Your task to perform on an android device: Go to display settings Image 0: 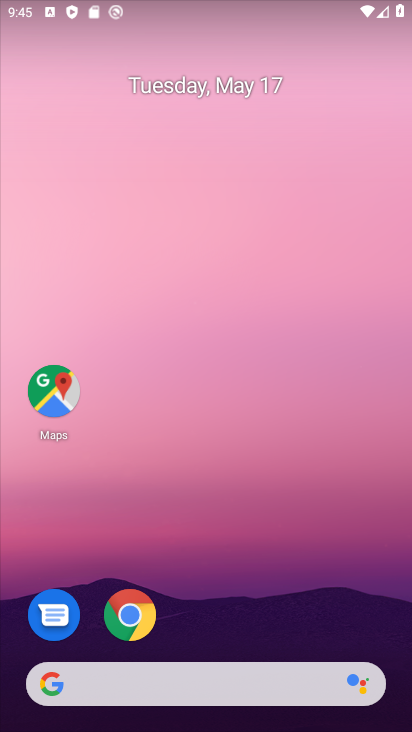
Step 0: drag from (387, 644) to (372, 33)
Your task to perform on an android device: Go to display settings Image 1: 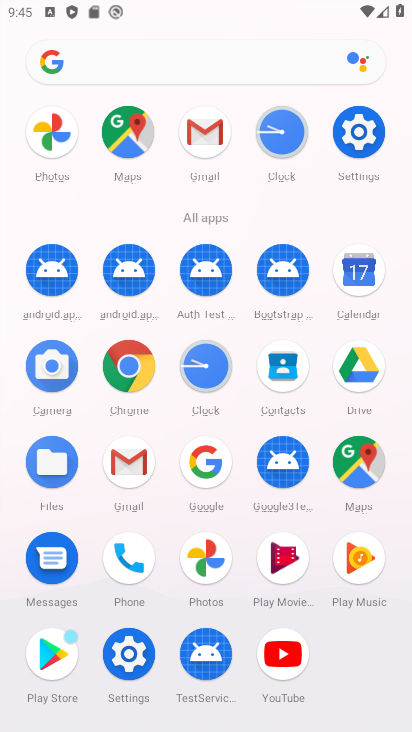
Step 1: click (132, 655)
Your task to perform on an android device: Go to display settings Image 2: 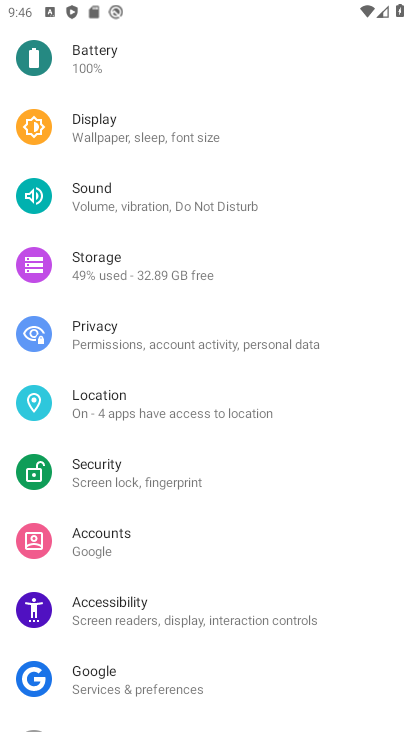
Step 2: click (103, 122)
Your task to perform on an android device: Go to display settings Image 3: 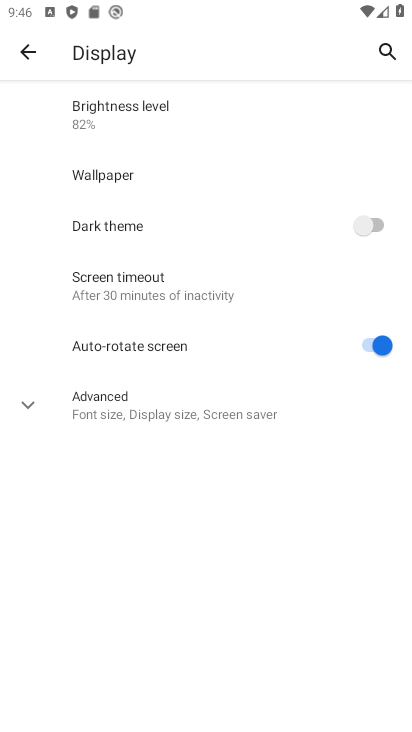
Step 3: click (49, 395)
Your task to perform on an android device: Go to display settings Image 4: 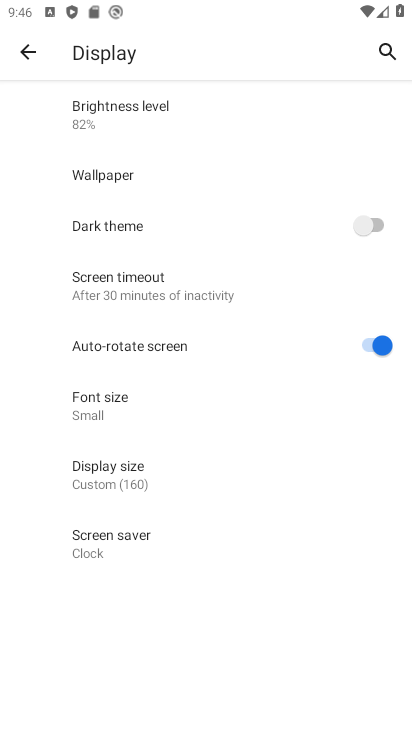
Step 4: task complete